Your task to perform on an android device: What is the news today? Image 0: 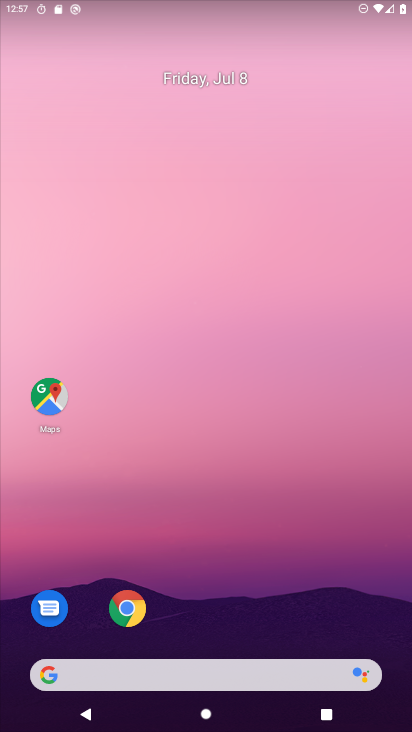
Step 0: drag from (223, 719) to (216, 551)
Your task to perform on an android device: What is the news today? Image 1: 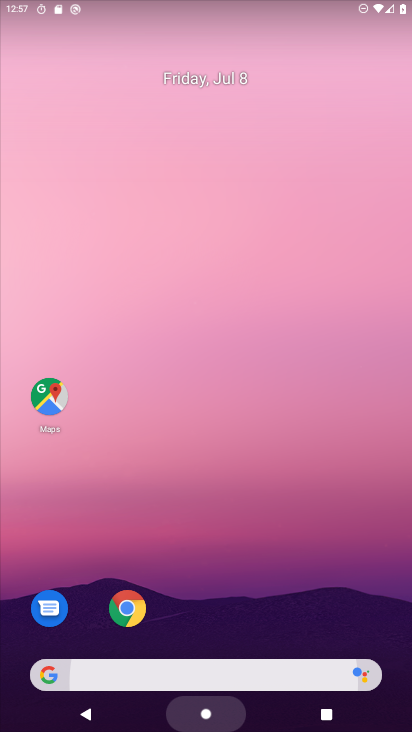
Step 1: task complete